Your task to perform on an android device: Search for dell xps on ebay, select the first entry, and add it to the cart. Image 0: 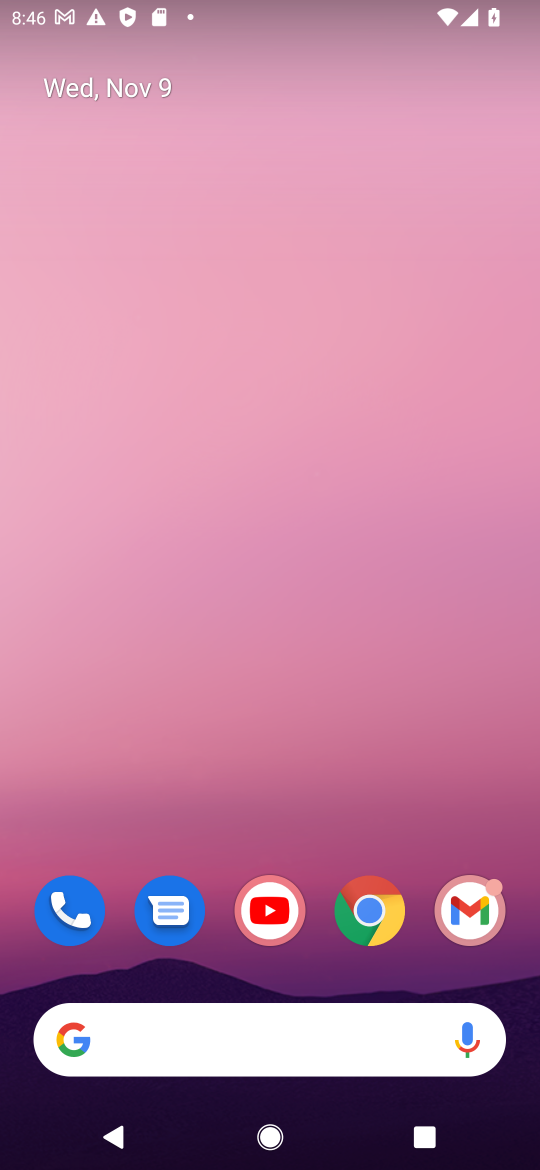
Step 0: click (377, 924)
Your task to perform on an android device: Search for dell xps on ebay, select the first entry, and add it to the cart. Image 1: 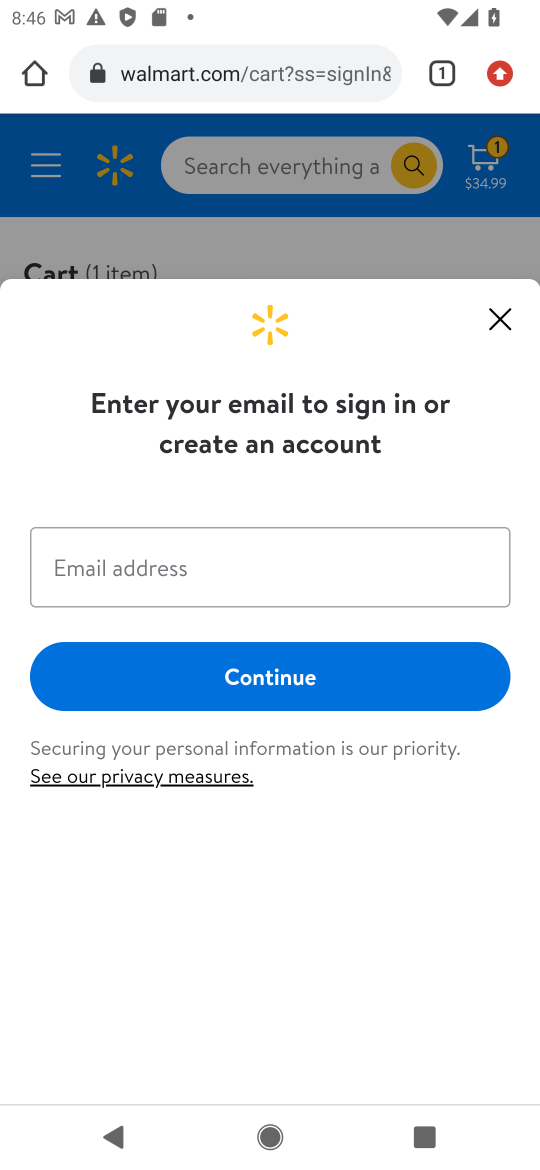
Step 1: click (236, 76)
Your task to perform on an android device: Search for dell xps on ebay, select the first entry, and add it to the cart. Image 2: 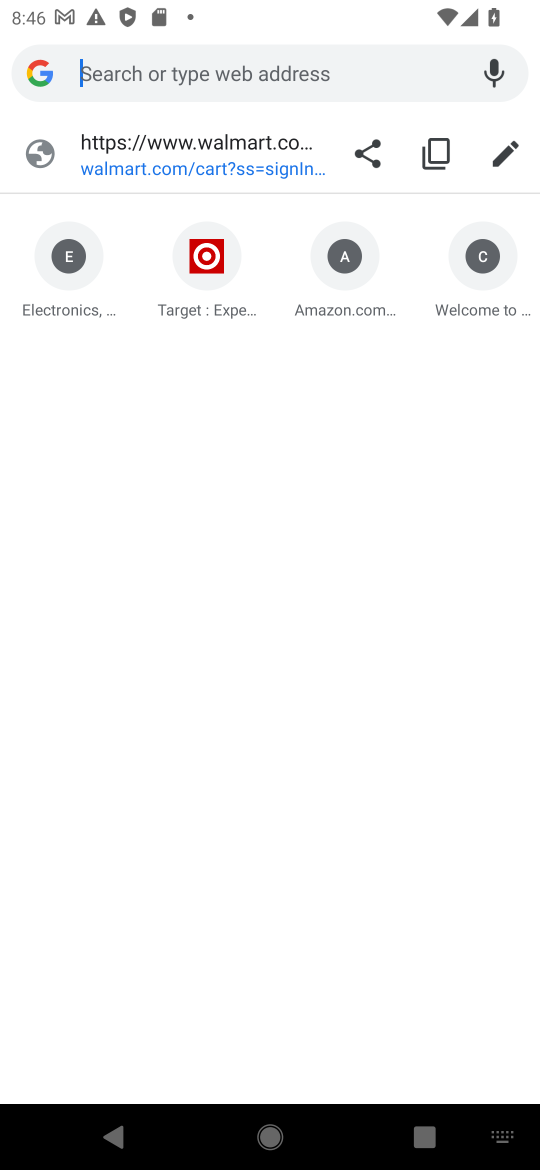
Step 2: type "ebay.com"
Your task to perform on an android device: Search for dell xps on ebay, select the first entry, and add it to the cart. Image 3: 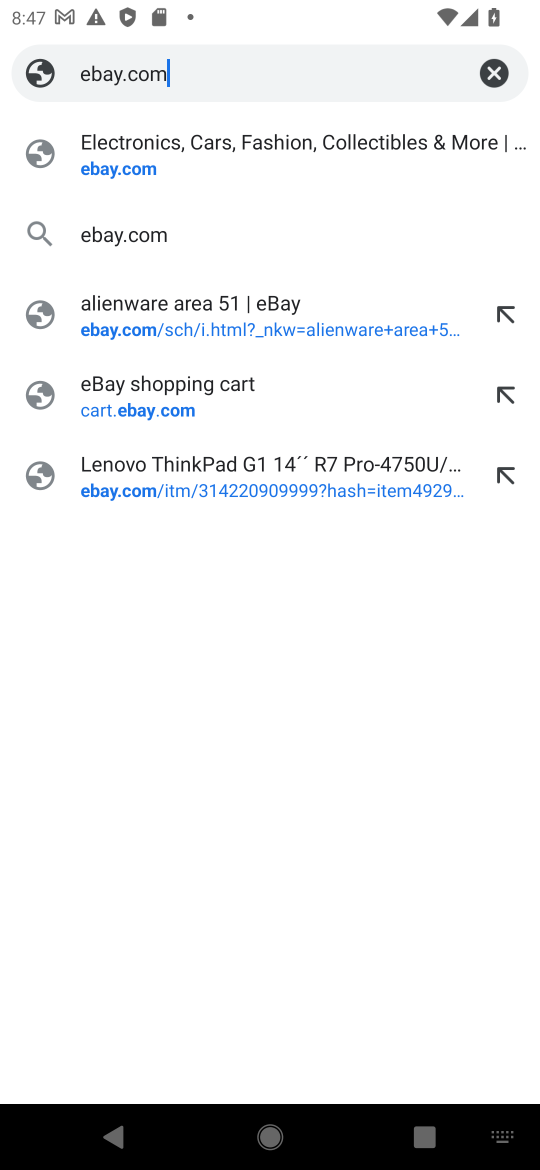
Step 3: click (120, 166)
Your task to perform on an android device: Search for dell xps on ebay, select the first entry, and add it to the cart. Image 4: 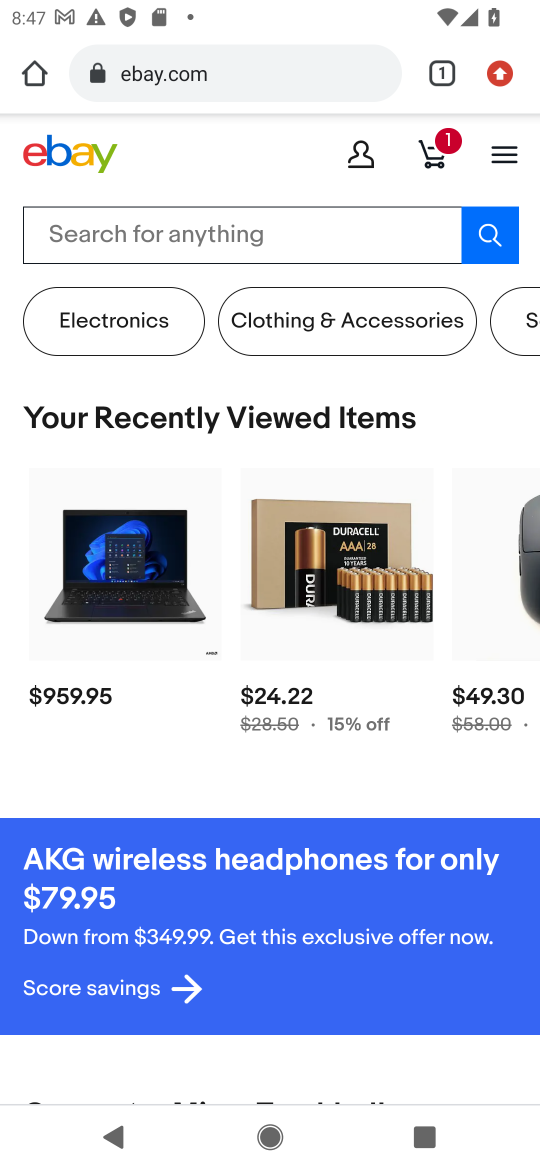
Step 4: click (296, 229)
Your task to perform on an android device: Search for dell xps on ebay, select the first entry, and add it to the cart. Image 5: 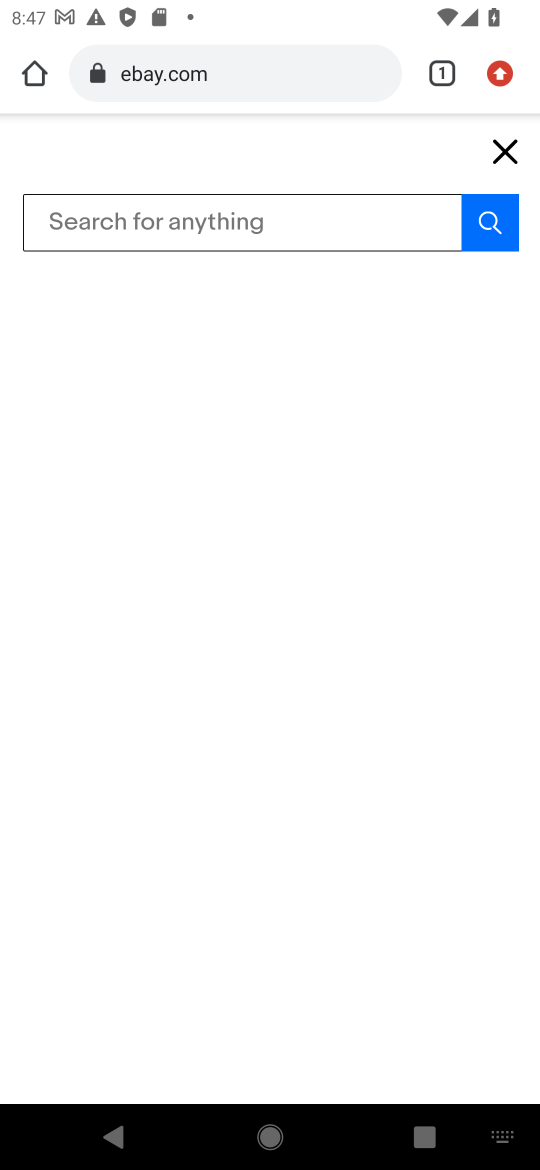
Step 5: type " dell xps "
Your task to perform on an android device: Search for dell xps on ebay, select the first entry, and add it to the cart. Image 6: 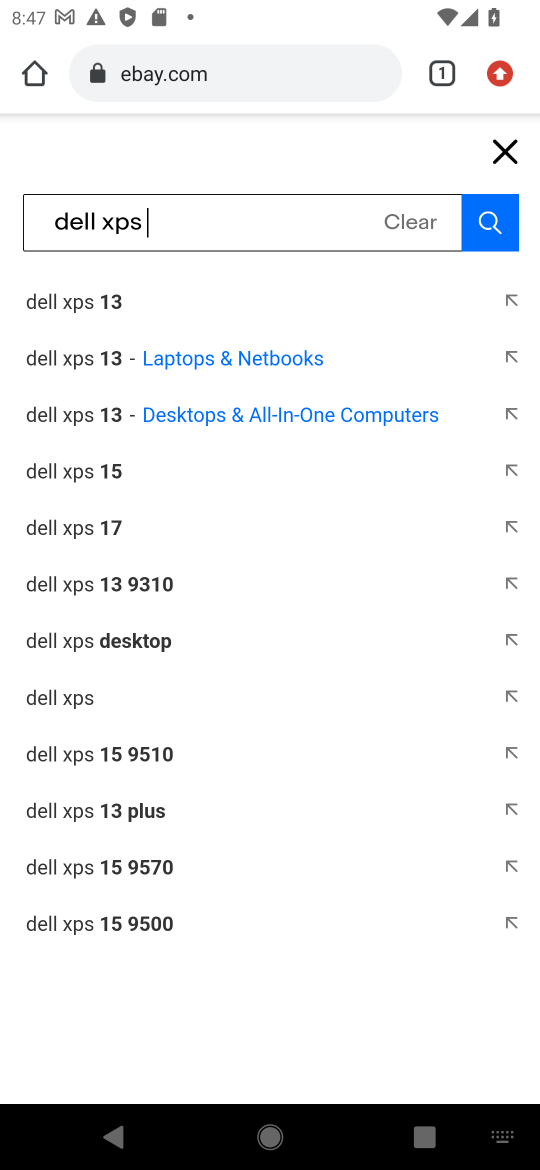
Step 6: click (79, 704)
Your task to perform on an android device: Search for dell xps on ebay, select the first entry, and add it to the cart. Image 7: 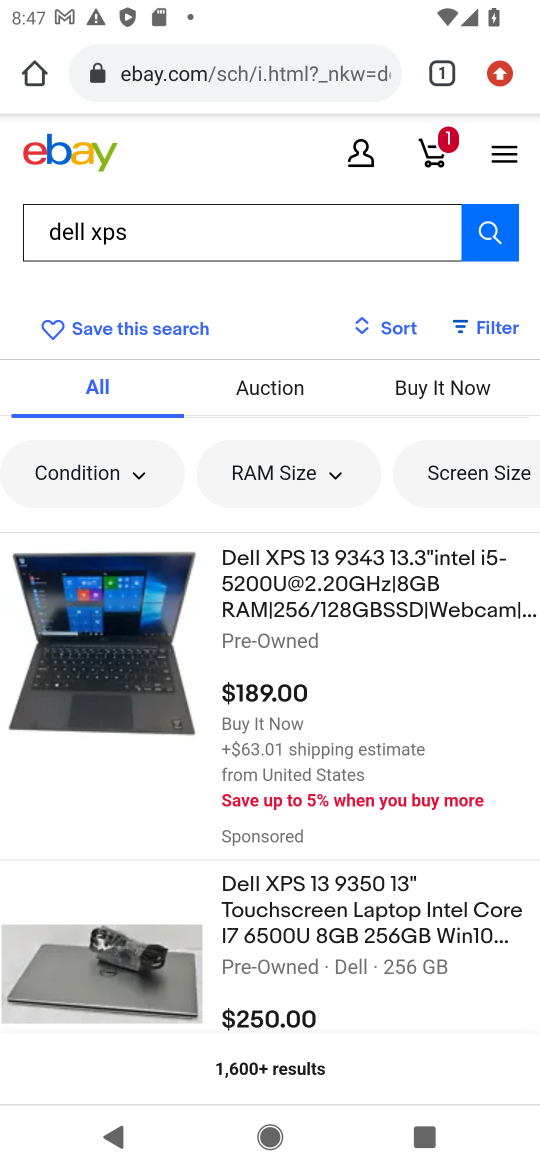
Step 7: click (129, 663)
Your task to perform on an android device: Search for dell xps on ebay, select the first entry, and add it to the cart. Image 8: 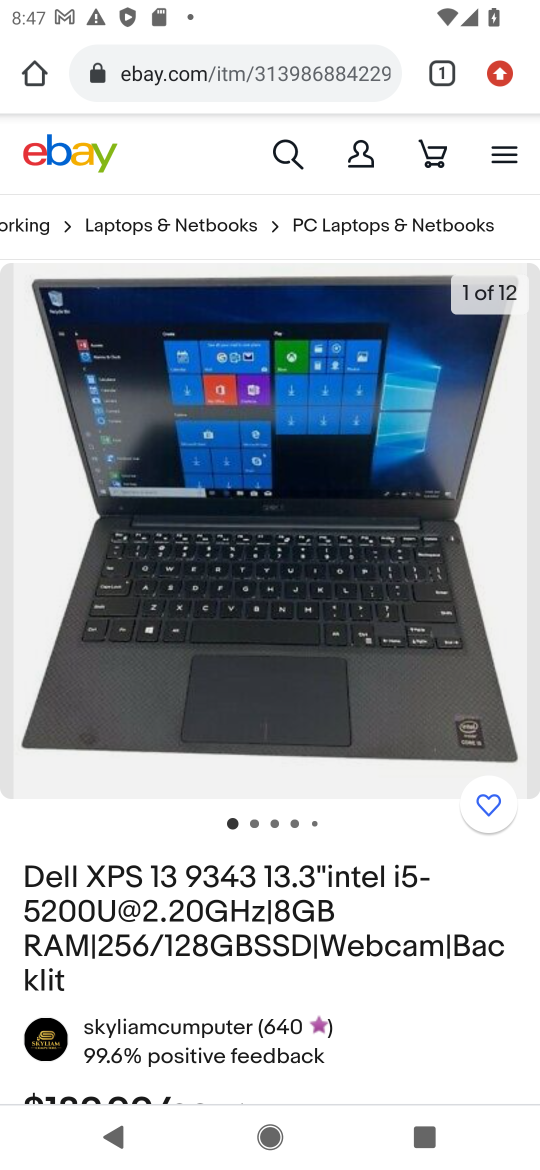
Step 8: drag from (298, 718) to (247, 209)
Your task to perform on an android device: Search for dell xps on ebay, select the first entry, and add it to the cart. Image 9: 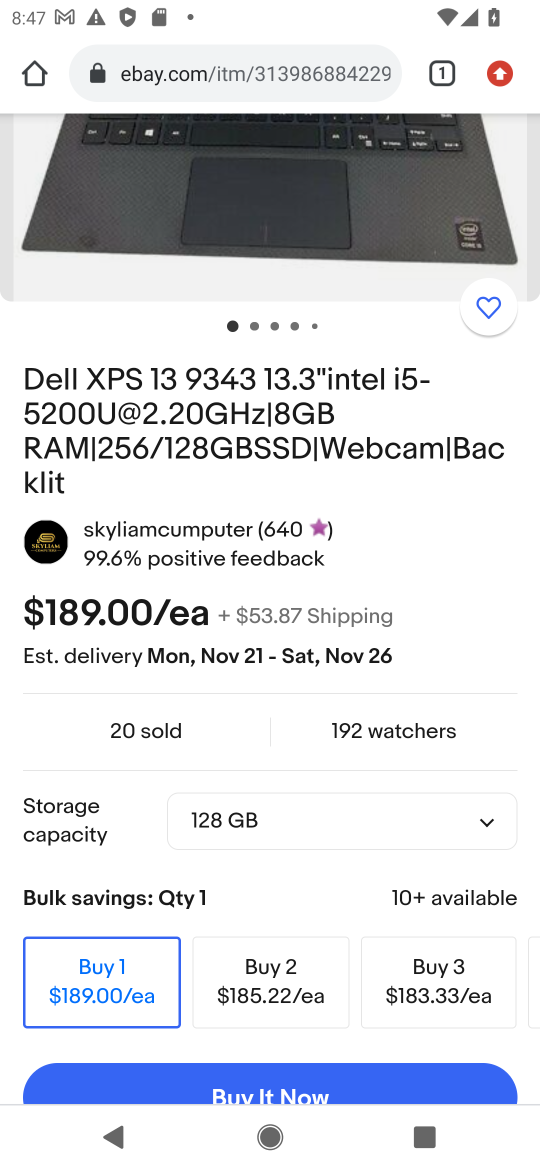
Step 9: drag from (197, 806) to (161, 284)
Your task to perform on an android device: Search for dell xps on ebay, select the first entry, and add it to the cart. Image 10: 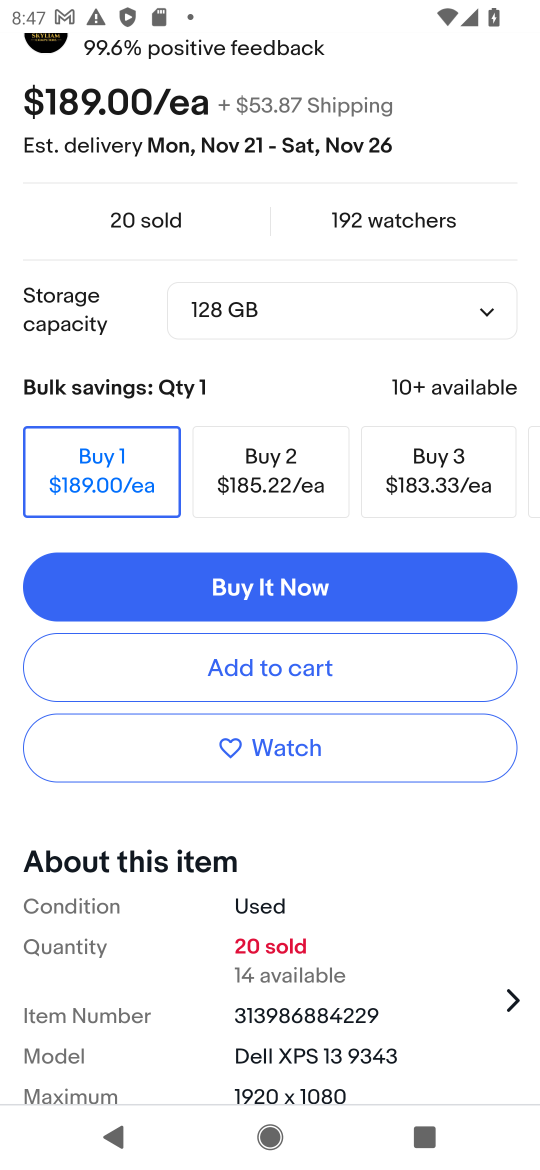
Step 10: click (240, 668)
Your task to perform on an android device: Search for dell xps on ebay, select the first entry, and add it to the cart. Image 11: 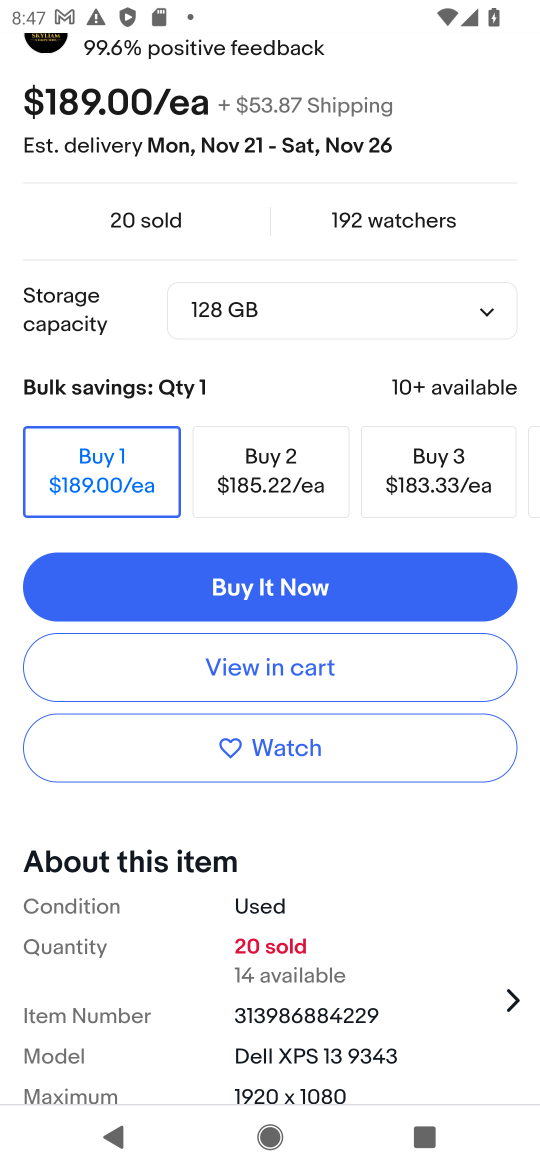
Step 11: task complete